Your task to perform on an android device: change notification settings in the gmail app Image 0: 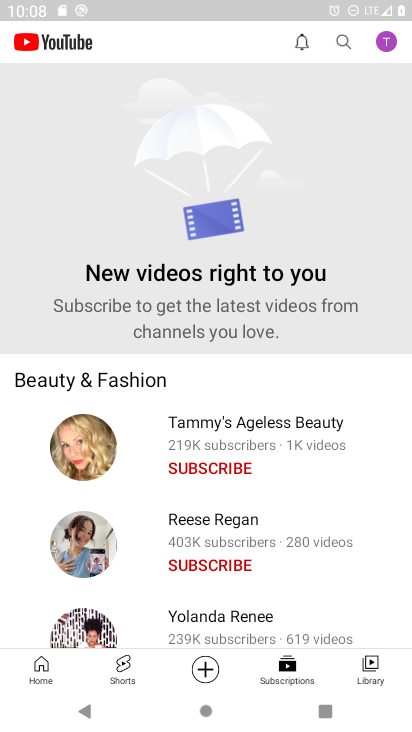
Step 0: press home button
Your task to perform on an android device: change notification settings in the gmail app Image 1: 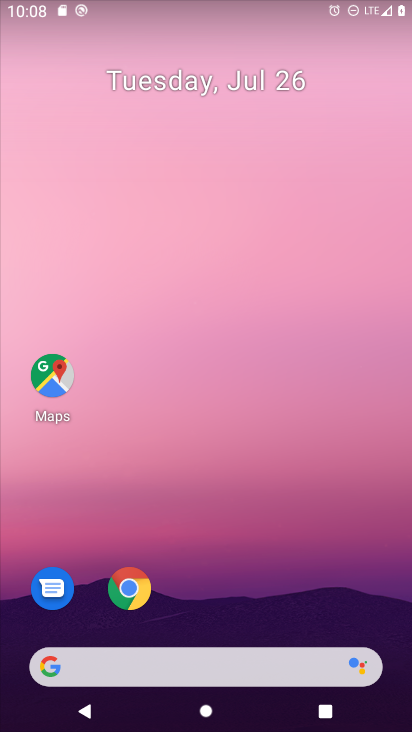
Step 1: drag from (238, 671) to (238, 188)
Your task to perform on an android device: change notification settings in the gmail app Image 2: 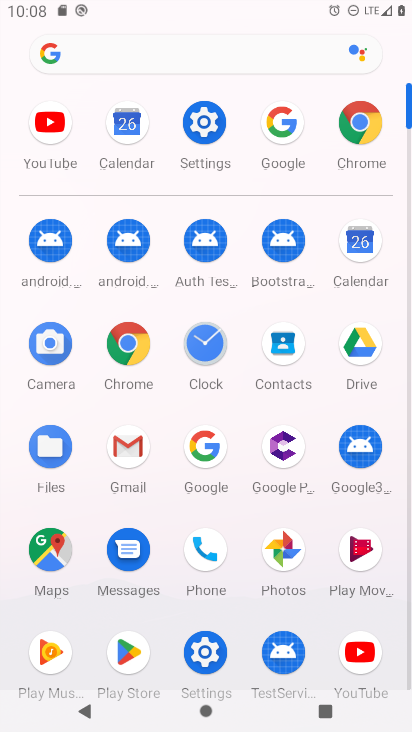
Step 2: click (127, 468)
Your task to perform on an android device: change notification settings in the gmail app Image 3: 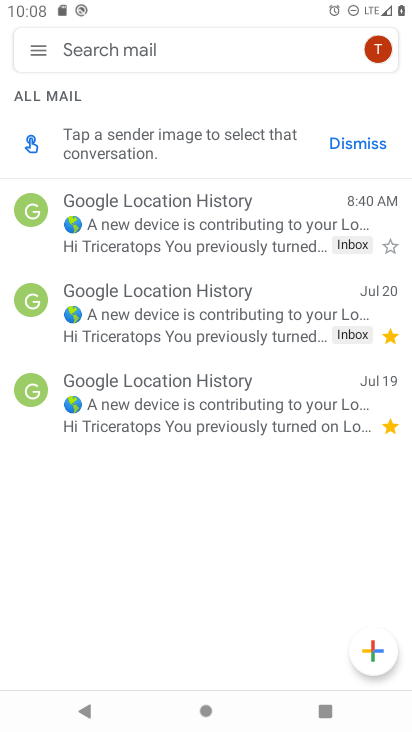
Step 3: click (42, 55)
Your task to perform on an android device: change notification settings in the gmail app Image 4: 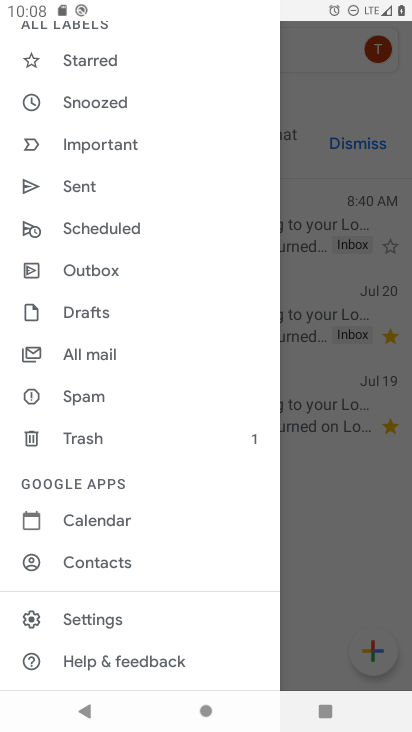
Step 4: click (78, 623)
Your task to perform on an android device: change notification settings in the gmail app Image 5: 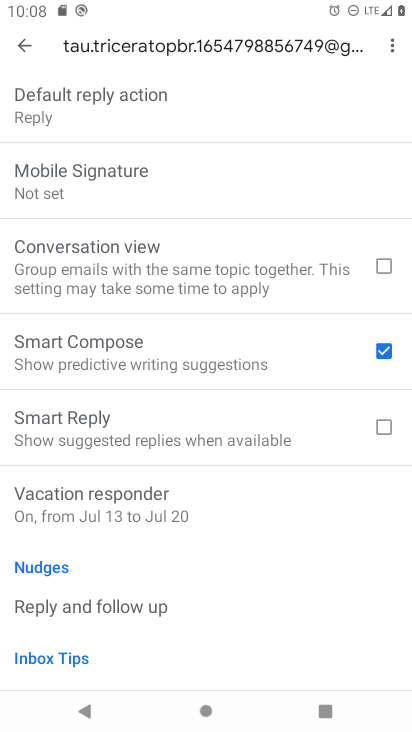
Step 5: click (20, 51)
Your task to perform on an android device: change notification settings in the gmail app Image 6: 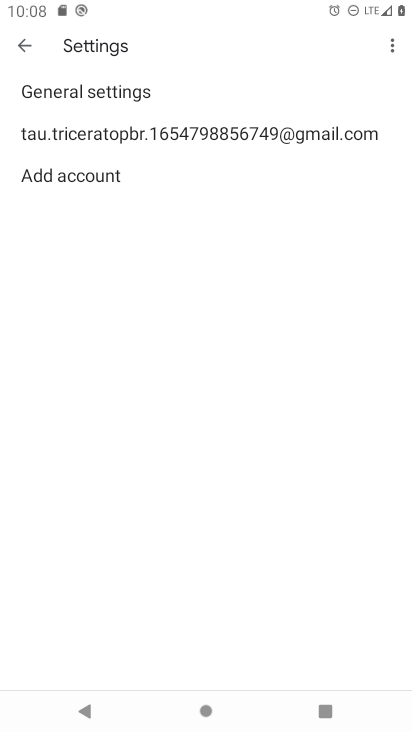
Step 6: click (81, 86)
Your task to perform on an android device: change notification settings in the gmail app Image 7: 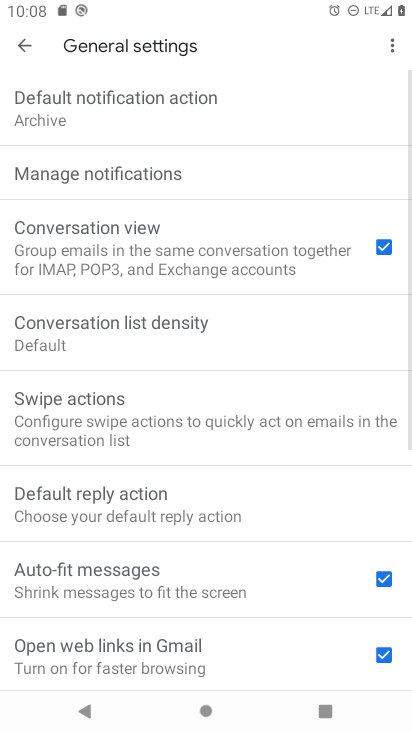
Step 7: click (103, 177)
Your task to perform on an android device: change notification settings in the gmail app Image 8: 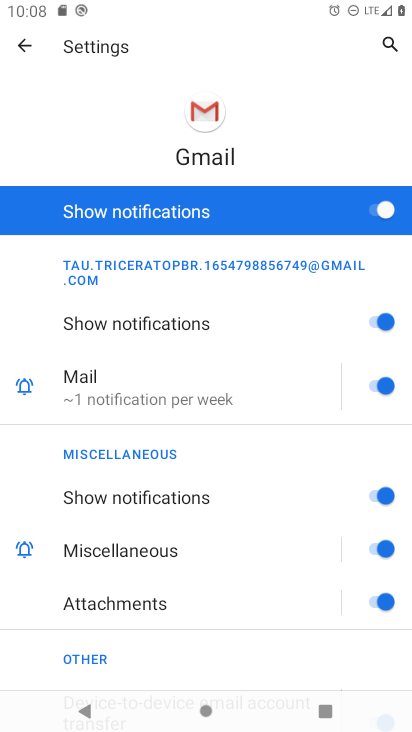
Step 8: click (212, 212)
Your task to perform on an android device: change notification settings in the gmail app Image 9: 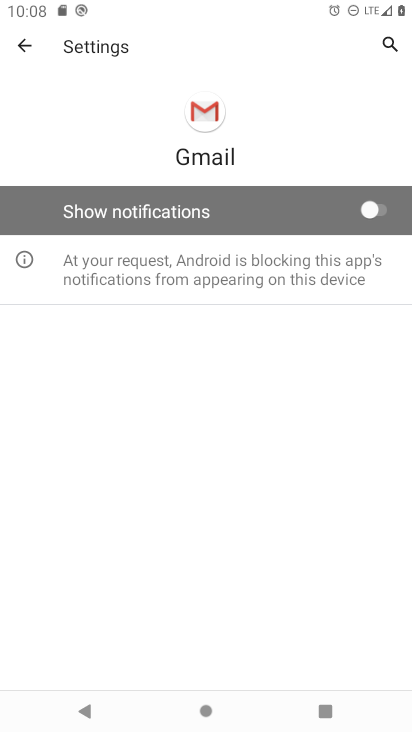
Step 9: task complete